Your task to perform on an android device: Go to CNN.com Image 0: 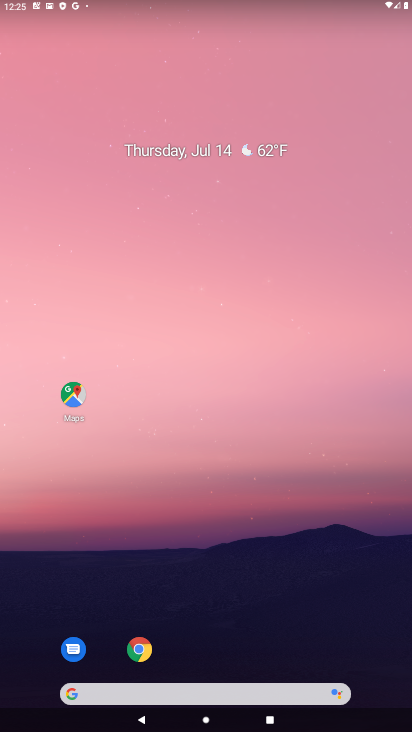
Step 0: drag from (383, 690) to (179, 30)
Your task to perform on an android device: Go to CNN.com Image 1: 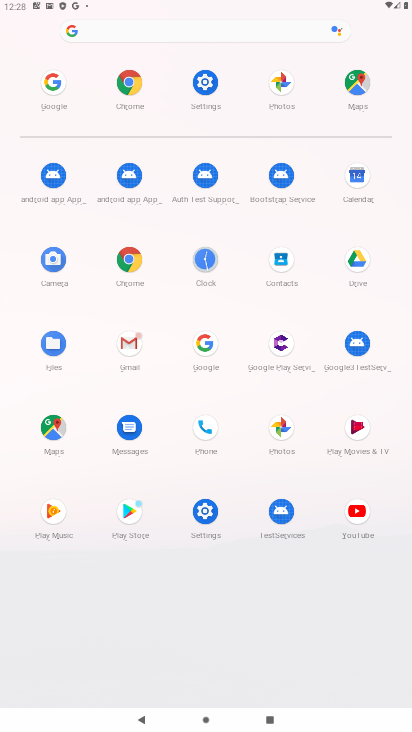
Step 1: click (198, 357)
Your task to perform on an android device: Go to CNN.com Image 2: 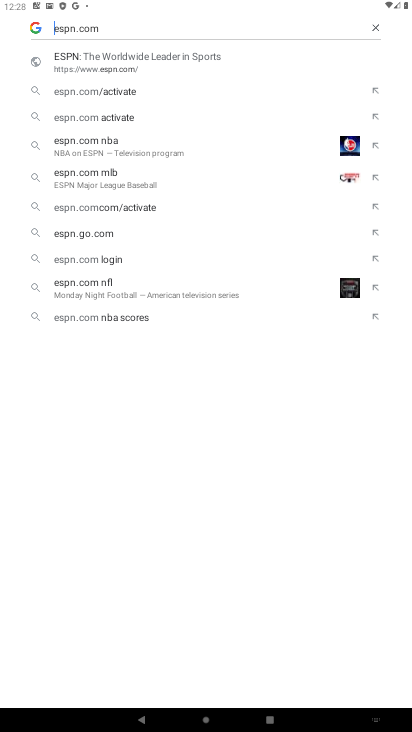
Step 2: click (363, 25)
Your task to perform on an android device: Go to CNN.com Image 3: 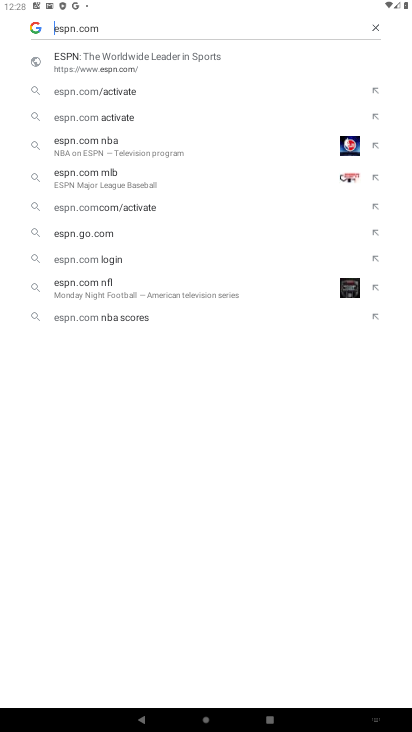
Step 3: click (377, 30)
Your task to perform on an android device: Go to CNN.com Image 4: 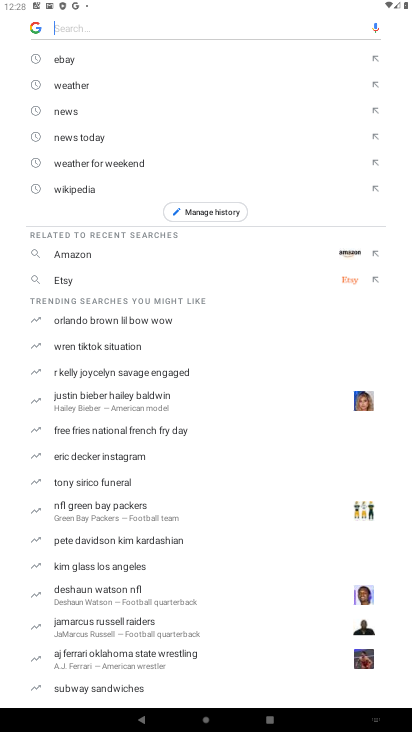
Step 4: click (104, 25)
Your task to perform on an android device: Go to CNN.com Image 5: 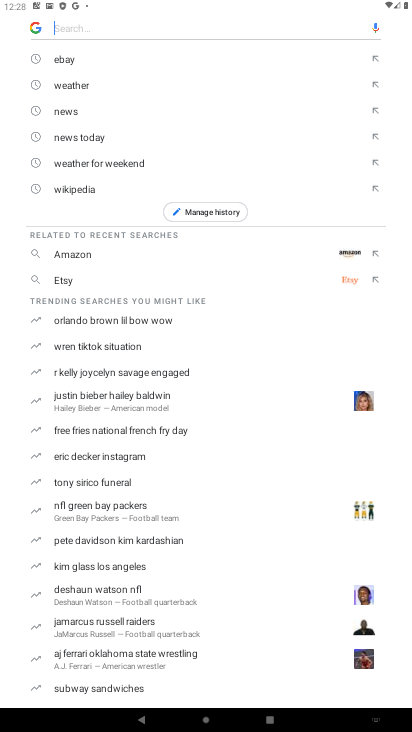
Step 5: type "cnn.com"
Your task to perform on an android device: Go to CNN.com Image 6: 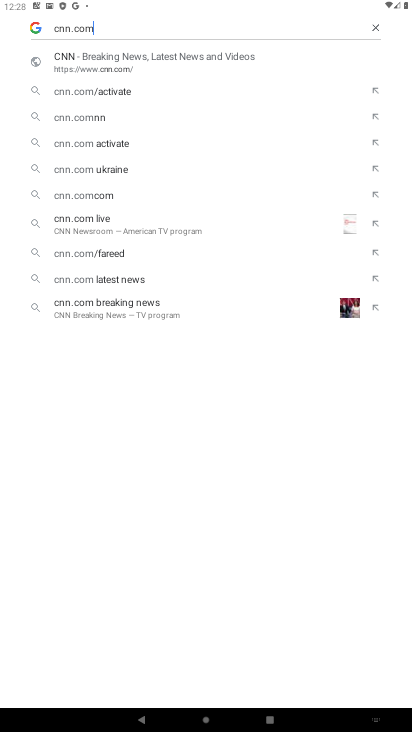
Step 6: click (195, 56)
Your task to perform on an android device: Go to CNN.com Image 7: 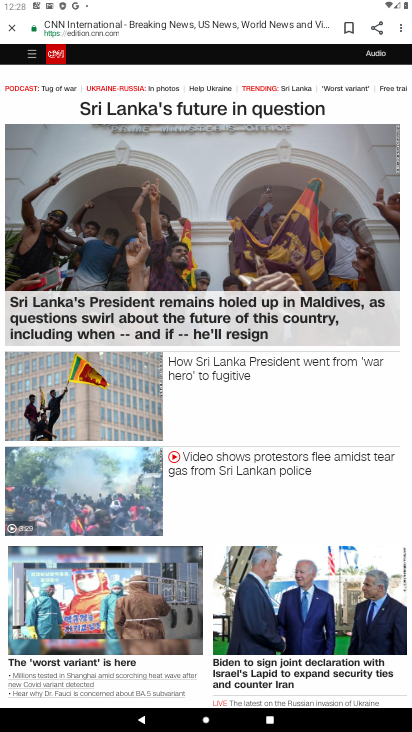
Step 7: task complete